Your task to perform on an android device: see tabs open on other devices in the chrome app Image 0: 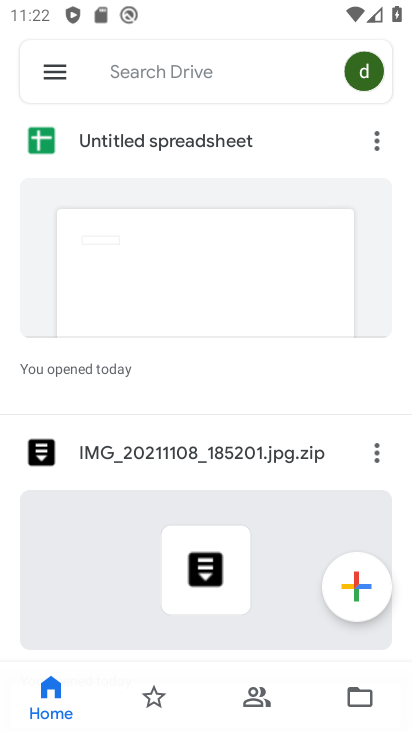
Step 0: press home button
Your task to perform on an android device: see tabs open on other devices in the chrome app Image 1: 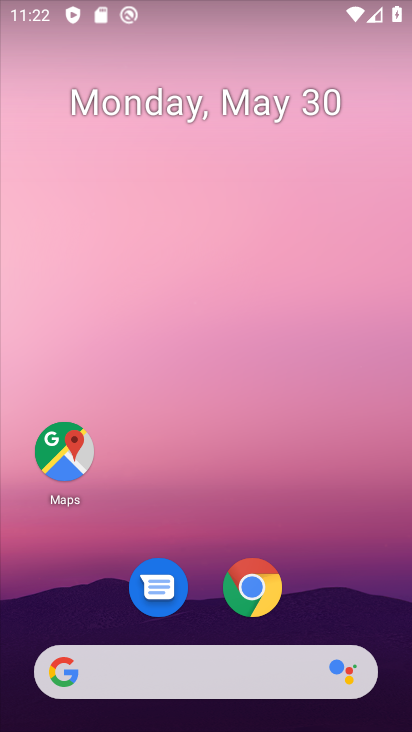
Step 1: click (262, 582)
Your task to perform on an android device: see tabs open on other devices in the chrome app Image 2: 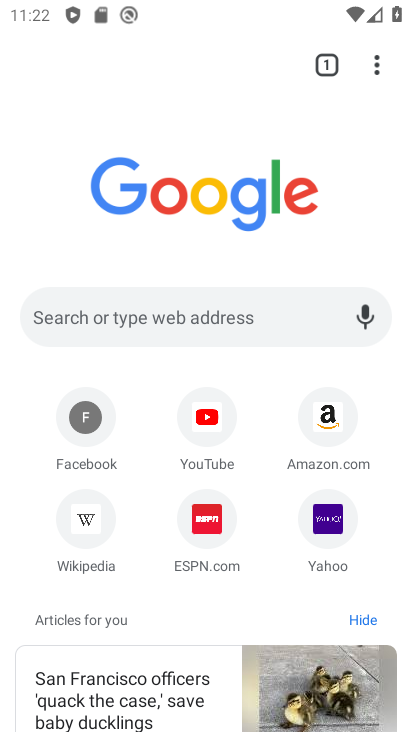
Step 2: click (387, 59)
Your task to perform on an android device: see tabs open on other devices in the chrome app Image 3: 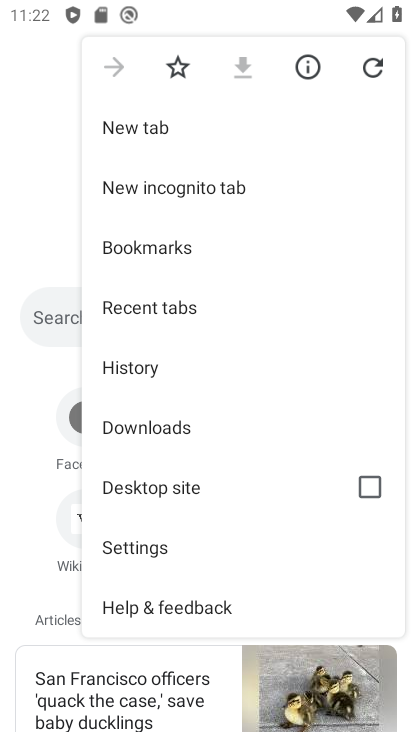
Step 3: click (170, 325)
Your task to perform on an android device: see tabs open on other devices in the chrome app Image 4: 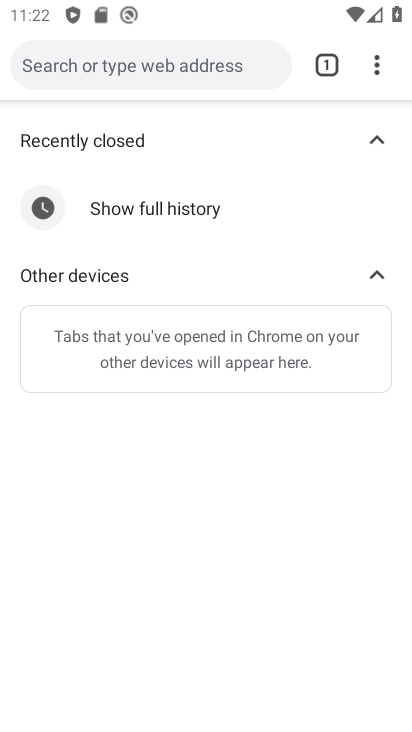
Step 4: task complete